Your task to perform on an android device: change notifications settings Image 0: 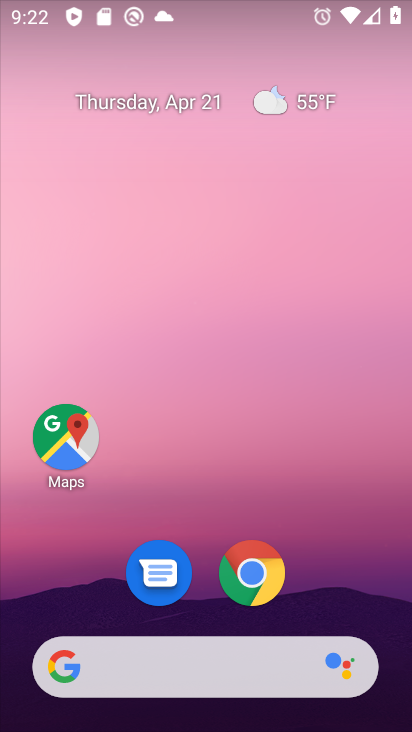
Step 0: drag from (344, 529) to (308, 130)
Your task to perform on an android device: change notifications settings Image 1: 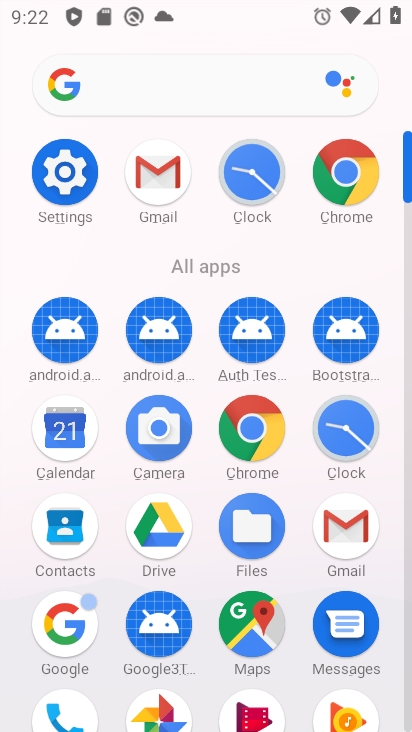
Step 1: click (57, 159)
Your task to perform on an android device: change notifications settings Image 2: 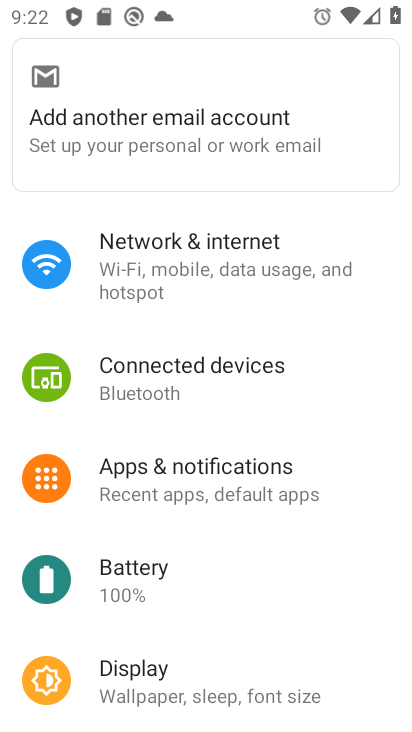
Step 2: click (217, 478)
Your task to perform on an android device: change notifications settings Image 3: 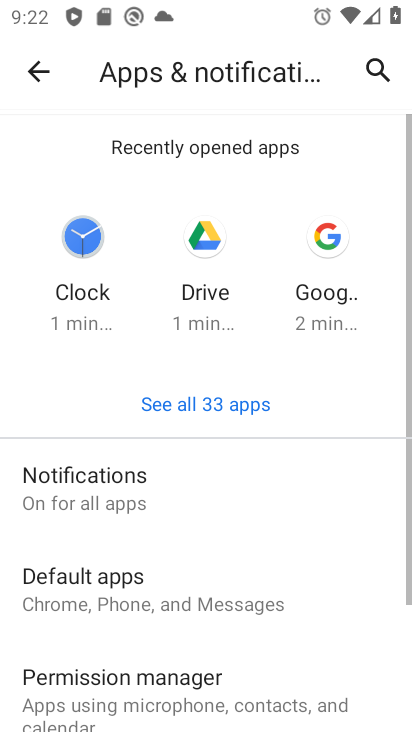
Step 3: click (107, 500)
Your task to perform on an android device: change notifications settings Image 4: 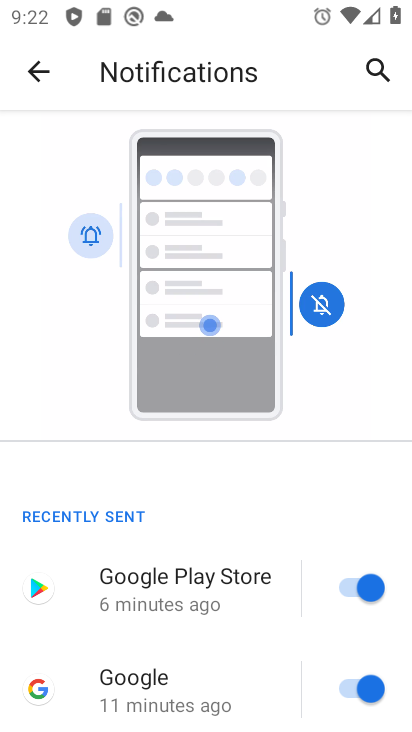
Step 4: drag from (173, 591) to (256, 310)
Your task to perform on an android device: change notifications settings Image 5: 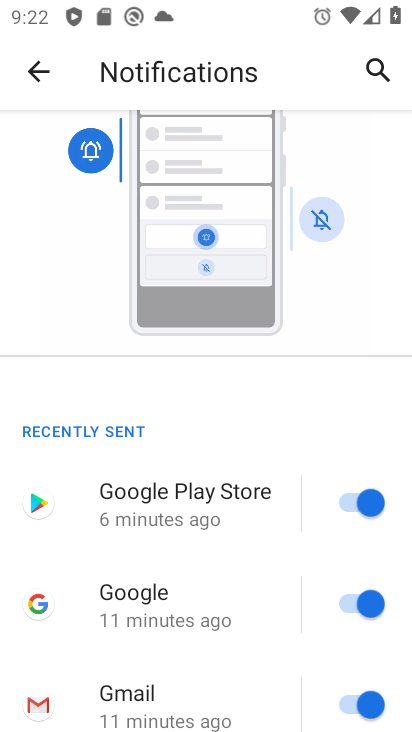
Step 5: drag from (192, 631) to (250, 287)
Your task to perform on an android device: change notifications settings Image 6: 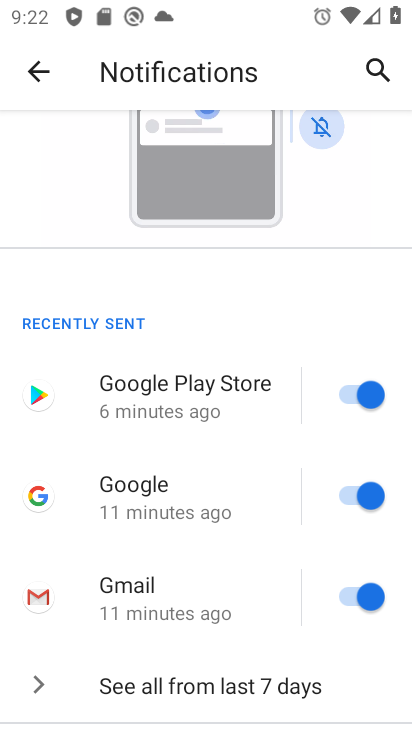
Step 6: drag from (197, 507) to (272, 203)
Your task to perform on an android device: change notifications settings Image 7: 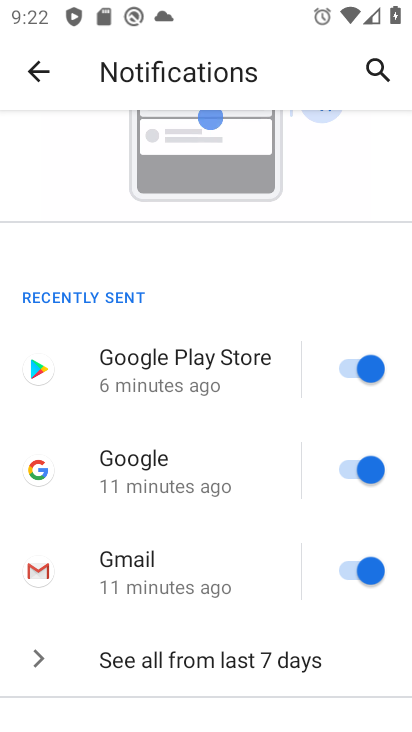
Step 7: drag from (185, 646) to (246, 206)
Your task to perform on an android device: change notifications settings Image 8: 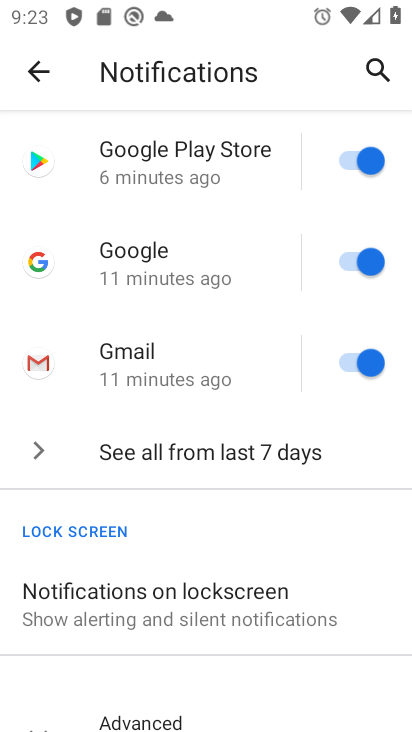
Step 8: click (142, 590)
Your task to perform on an android device: change notifications settings Image 9: 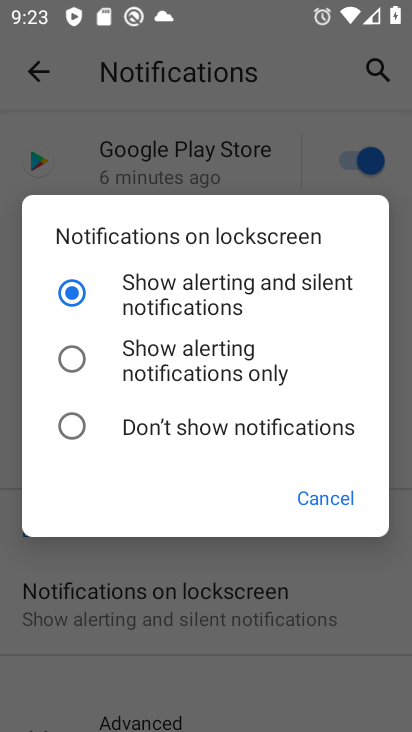
Step 9: click (84, 430)
Your task to perform on an android device: change notifications settings Image 10: 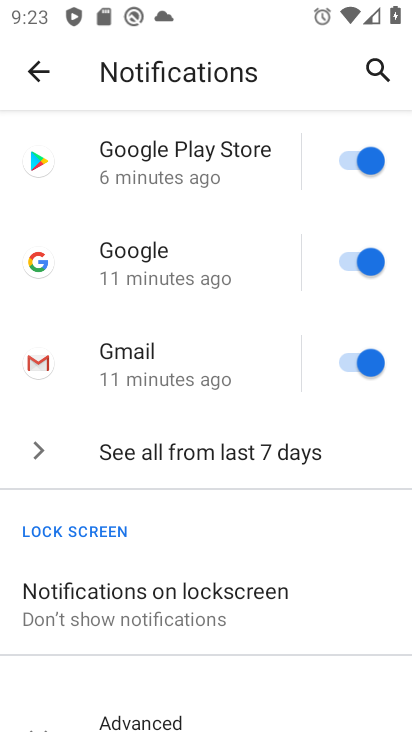
Step 10: task complete